Your task to perform on an android device: What's on my calendar tomorrow? Image 0: 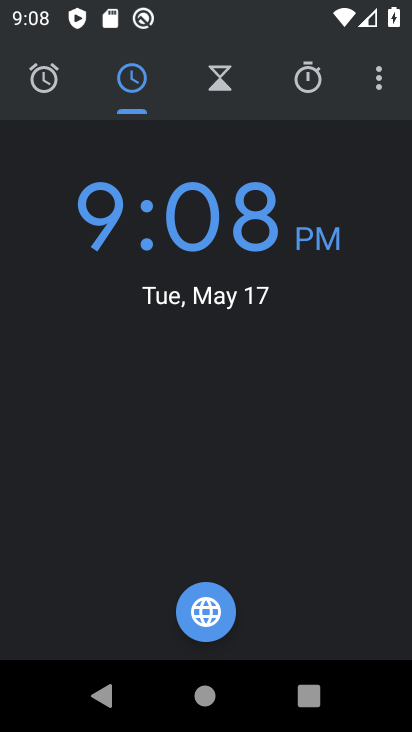
Step 0: press home button
Your task to perform on an android device: What's on my calendar tomorrow? Image 1: 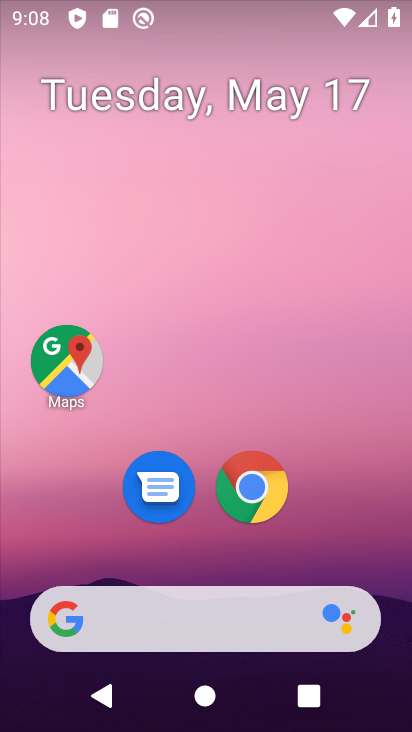
Step 1: drag from (285, 659) to (292, 334)
Your task to perform on an android device: What's on my calendar tomorrow? Image 2: 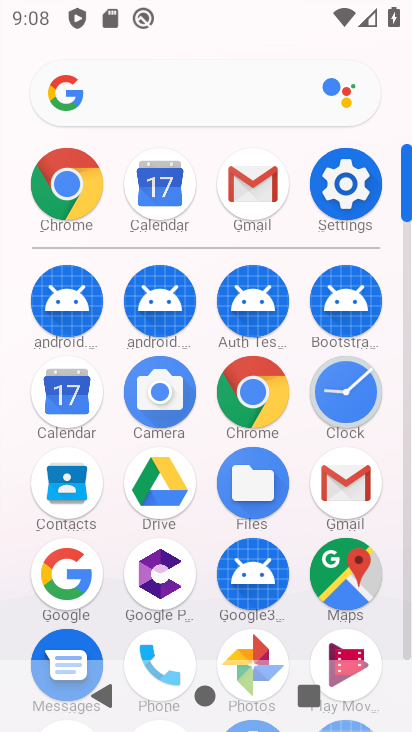
Step 2: click (71, 422)
Your task to perform on an android device: What's on my calendar tomorrow? Image 3: 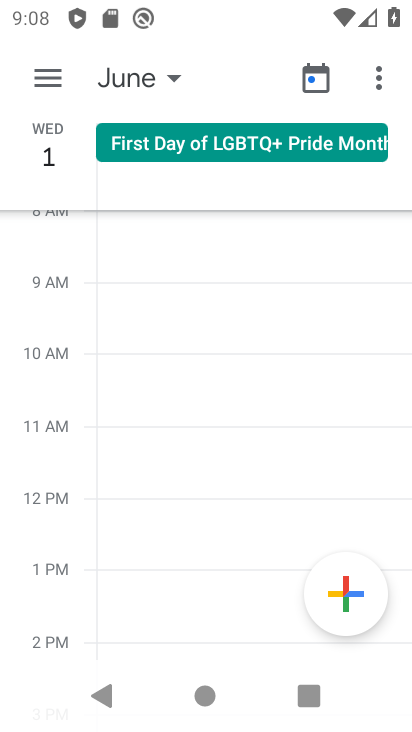
Step 3: click (42, 67)
Your task to perform on an android device: What's on my calendar tomorrow? Image 4: 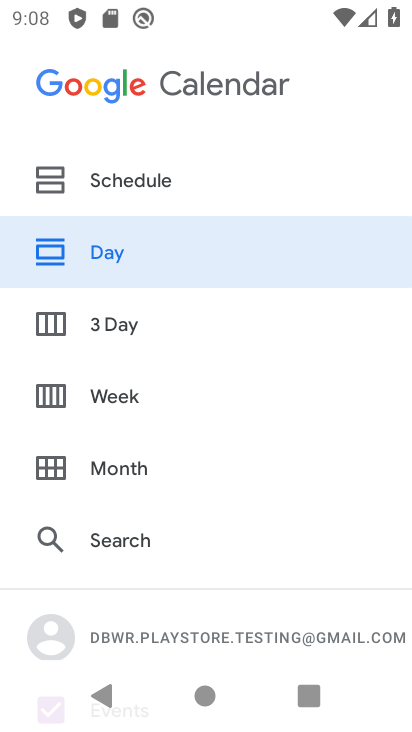
Step 4: click (121, 461)
Your task to perform on an android device: What's on my calendar tomorrow? Image 5: 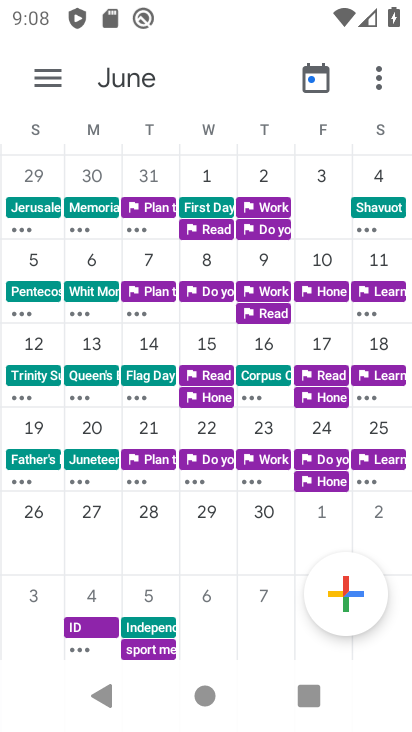
Step 5: drag from (29, 419) to (195, 458)
Your task to perform on an android device: What's on my calendar tomorrow? Image 6: 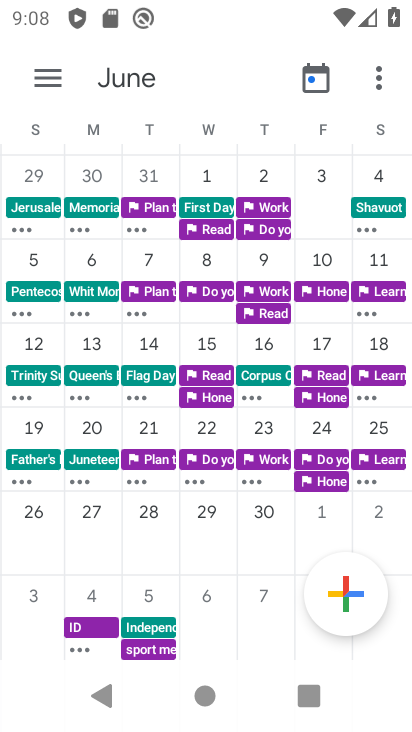
Step 6: drag from (119, 445) to (411, 224)
Your task to perform on an android device: What's on my calendar tomorrow? Image 7: 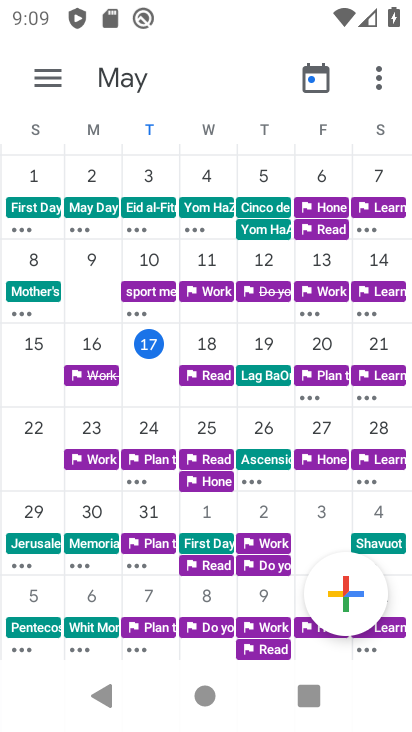
Step 7: click (208, 339)
Your task to perform on an android device: What's on my calendar tomorrow? Image 8: 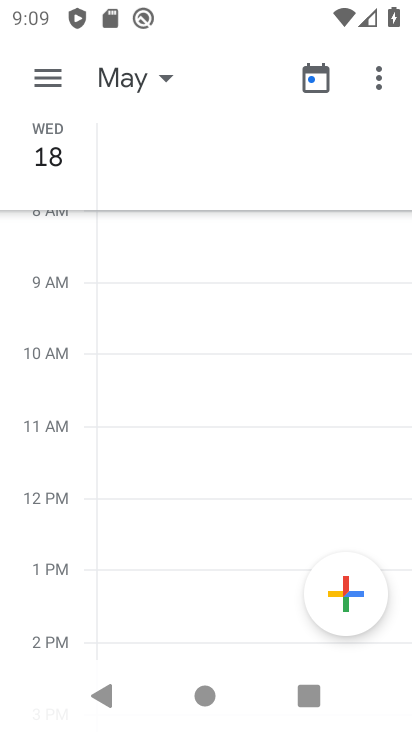
Step 8: task complete